Your task to perform on an android device: see sites visited before in the chrome app Image 0: 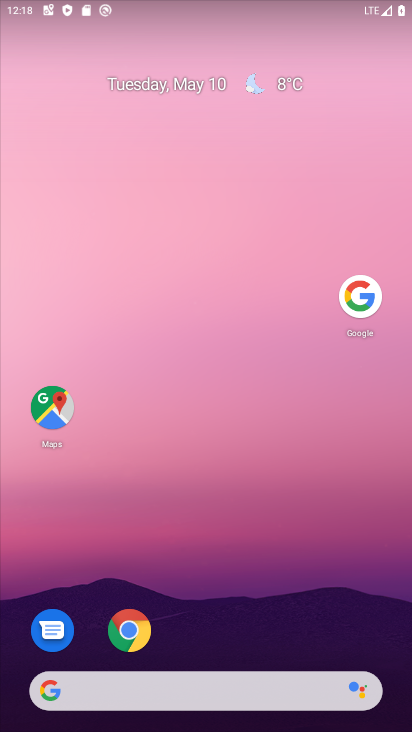
Step 0: drag from (247, 700) to (278, 281)
Your task to perform on an android device: see sites visited before in the chrome app Image 1: 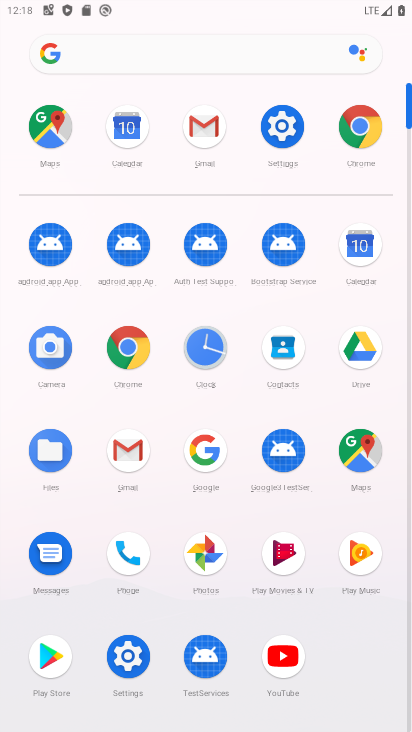
Step 1: click (358, 144)
Your task to perform on an android device: see sites visited before in the chrome app Image 2: 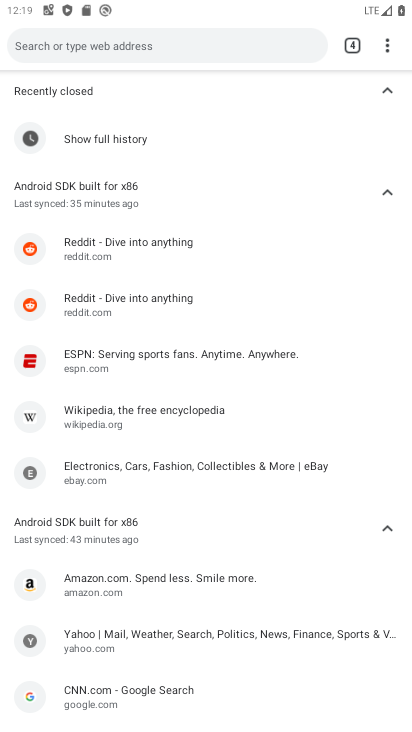
Step 2: task complete